Your task to perform on an android device: Turn off the flashlight Image 0: 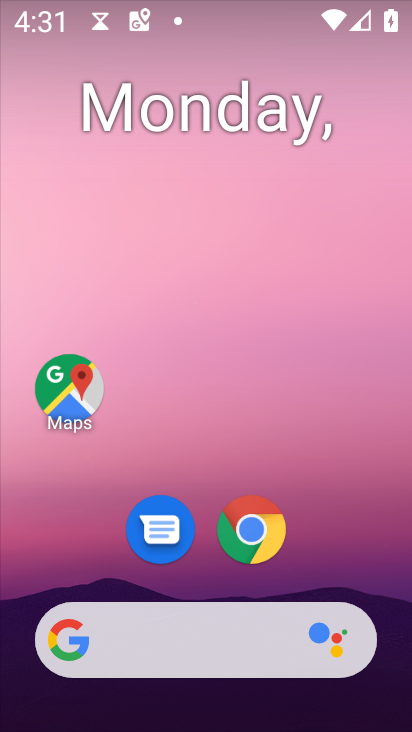
Step 0: drag from (192, 721) to (198, 193)
Your task to perform on an android device: Turn off the flashlight Image 1: 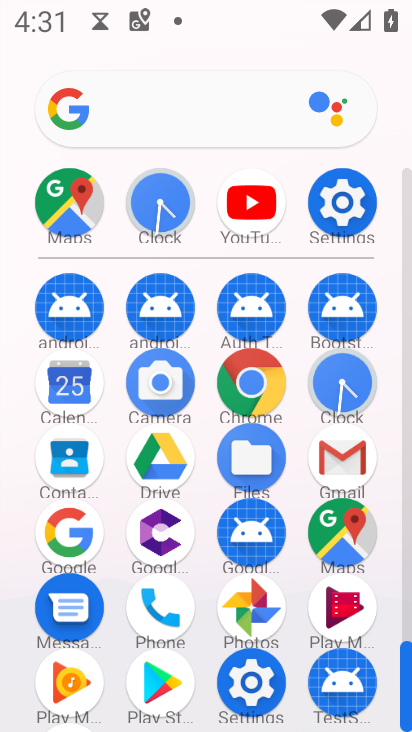
Step 1: click (339, 200)
Your task to perform on an android device: Turn off the flashlight Image 2: 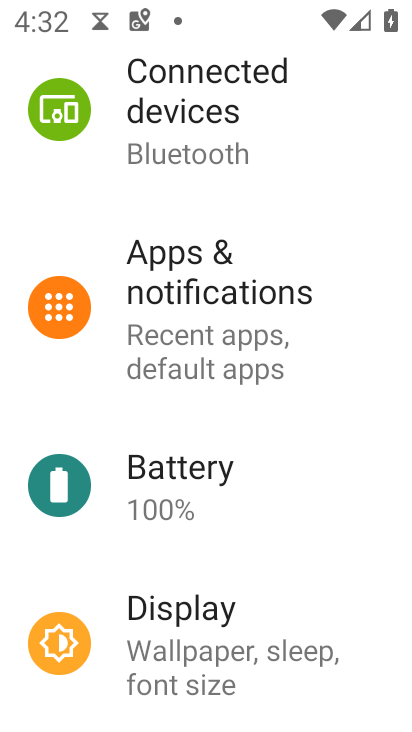
Step 2: task complete